Your task to perform on an android device: refresh tabs in the chrome app Image 0: 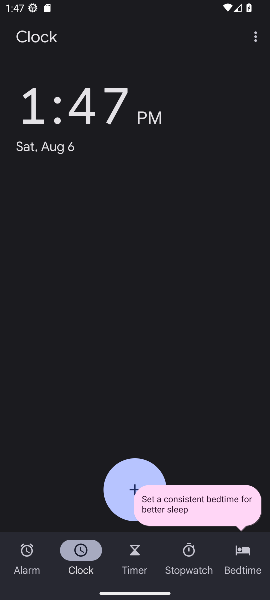
Step 0: press home button
Your task to perform on an android device: refresh tabs in the chrome app Image 1: 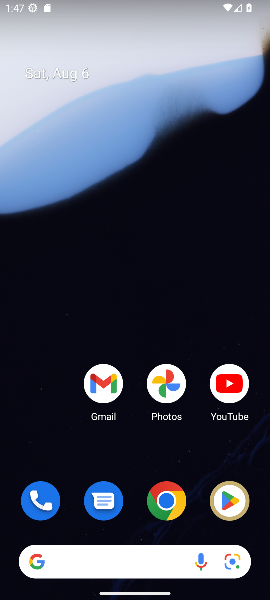
Step 1: click (170, 500)
Your task to perform on an android device: refresh tabs in the chrome app Image 2: 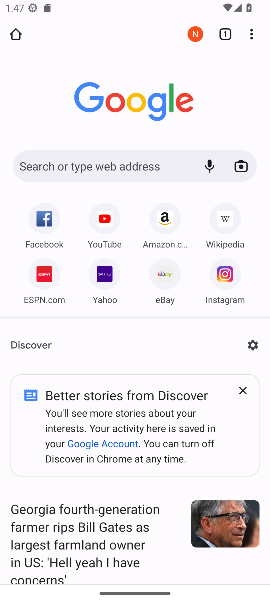
Step 2: click (250, 33)
Your task to perform on an android device: refresh tabs in the chrome app Image 3: 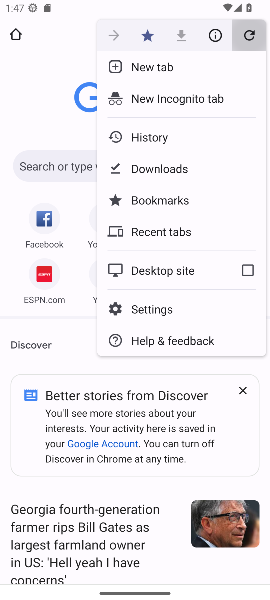
Step 3: click (250, 37)
Your task to perform on an android device: refresh tabs in the chrome app Image 4: 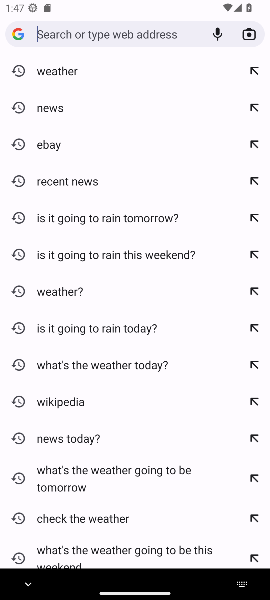
Step 4: task complete